Your task to perform on an android device: turn off picture-in-picture Image 0: 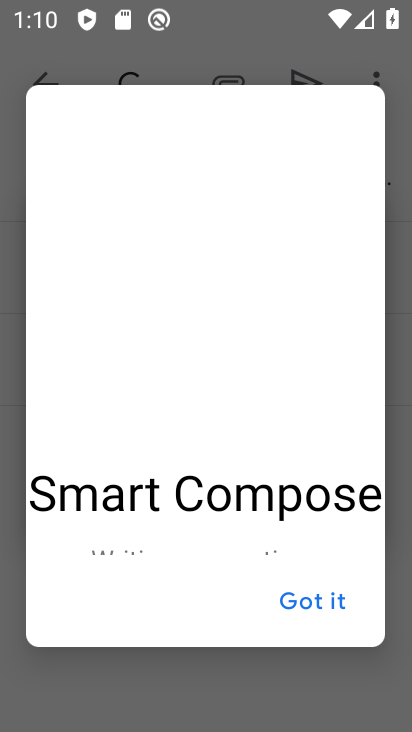
Step 0: press home button
Your task to perform on an android device: turn off picture-in-picture Image 1: 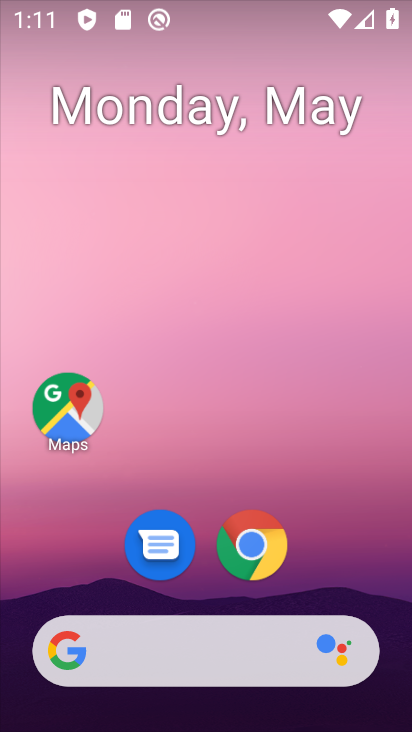
Step 1: click (242, 568)
Your task to perform on an android device: turn off picture-in-picture Image 2: 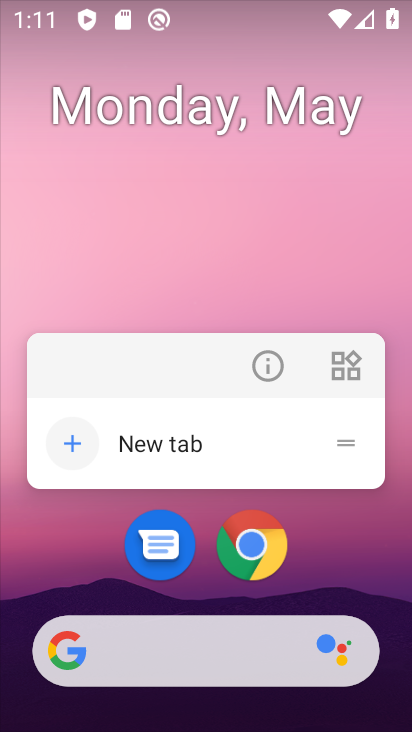
Step 2: click (266, 365)
Your task to perform on an android device: turn off picture-in-picture Image 3: 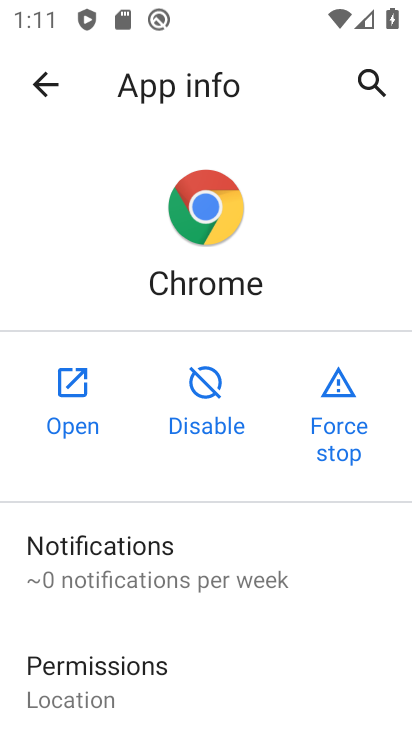
Step 3: drag from (159, 657) to (231, 74)
Your task to perform on an android device: turn off picture-in-picture Image 4: 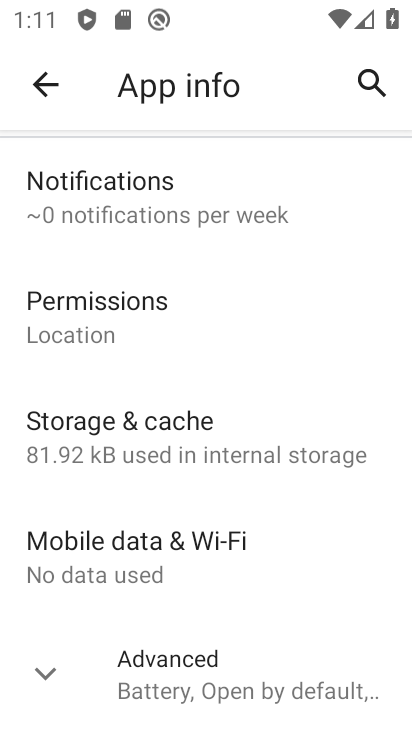
Step 4: drag from (235, 665) to (258, 18)
Your task to perform on an android device: turn off picture-in-picture Image 5: 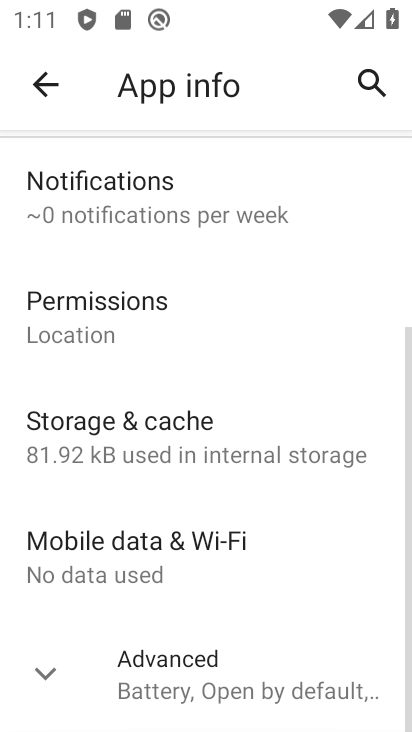
Step 5: click (251, 689)
Your task to perform on an android device: turn off picture-in-picture Image 6: 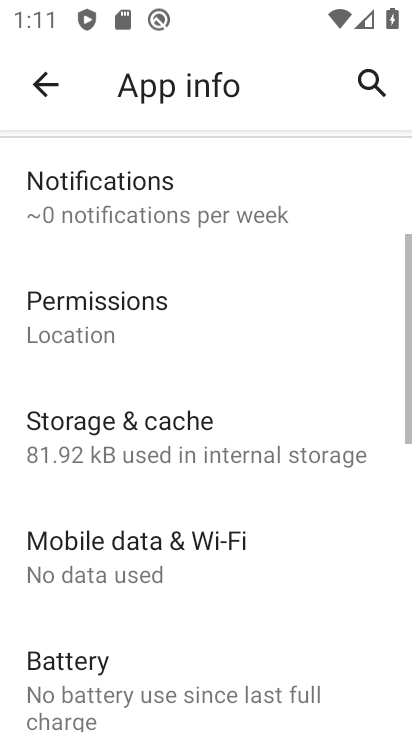
Step 6: drag from (214, 501) to (166, 72)
Your task to perform on an android device: turn off picture-in-picture Image 7: 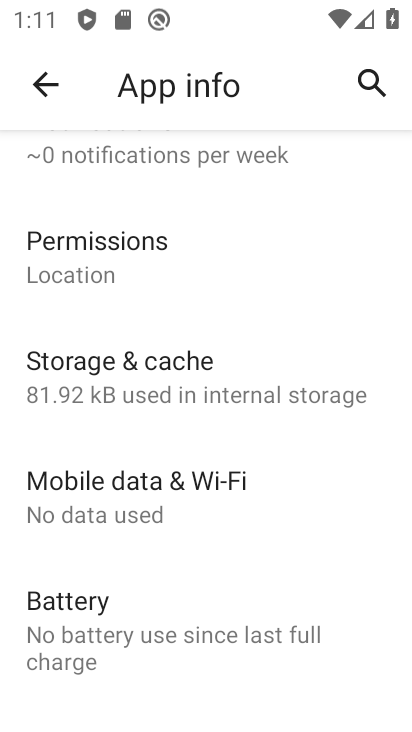
Step 7: drag from (228, 509) to (250, 48)
Your task to perform on an android device: turn off picture-in-picture Image 8: 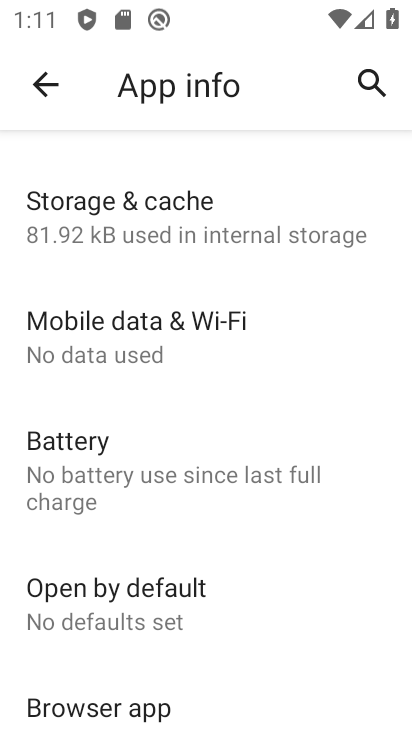
Step 8: drag from (173, 688) to (163, 98)
Your task to perform on an android device: turn off picture-in-picture Image 9: 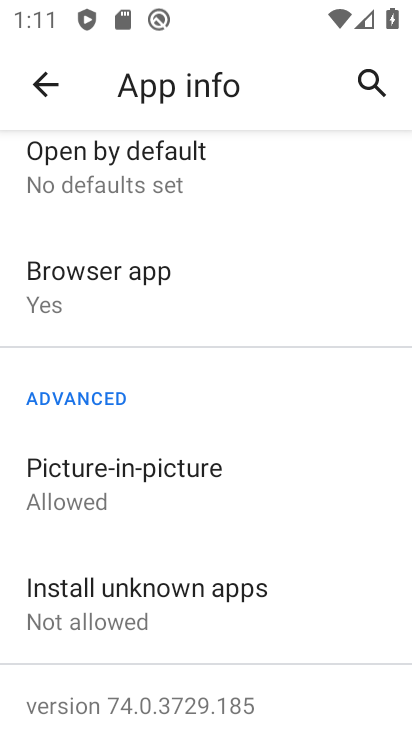
Step 9: drag from (182, 631) to (206, 59)
Your task to perform on an android device: turn off picture-in-picture Image 10: 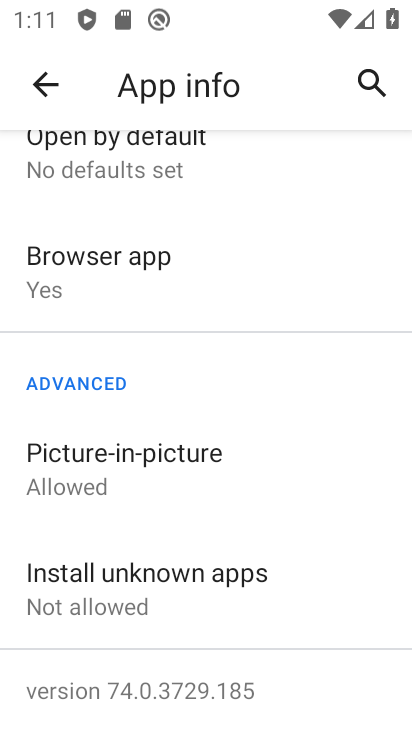
Step 10: click (193, 461)
Your task to perform on an android device: turn off picture-in-picture Image 11: 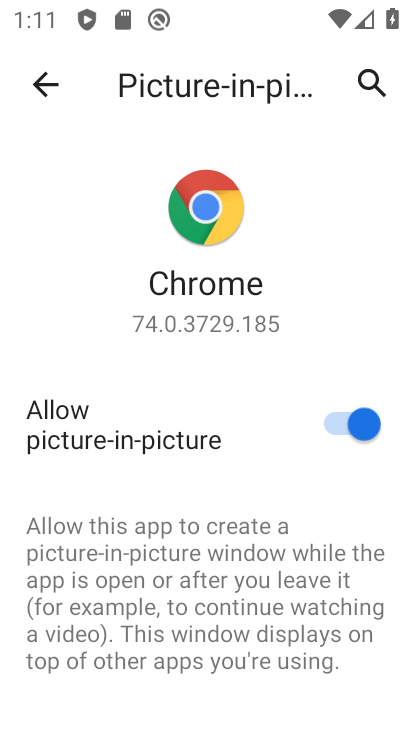
Step 11: click (366, 427)
Your task to perform on an android device: turn off picture-in-picture Image 12: 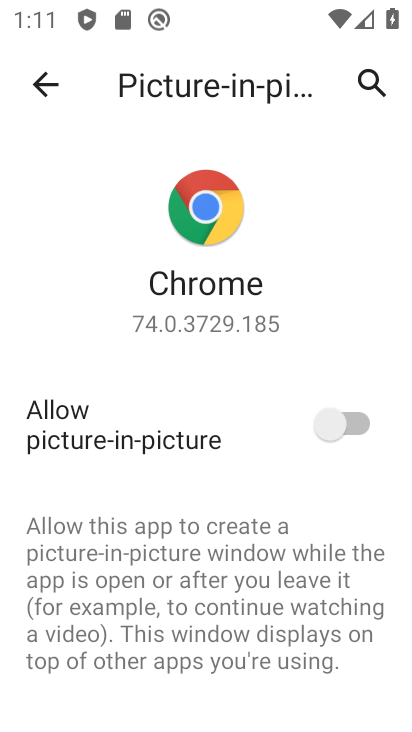
Step 12: task complete